Your task to perform on an android device: turn off location Image 0: 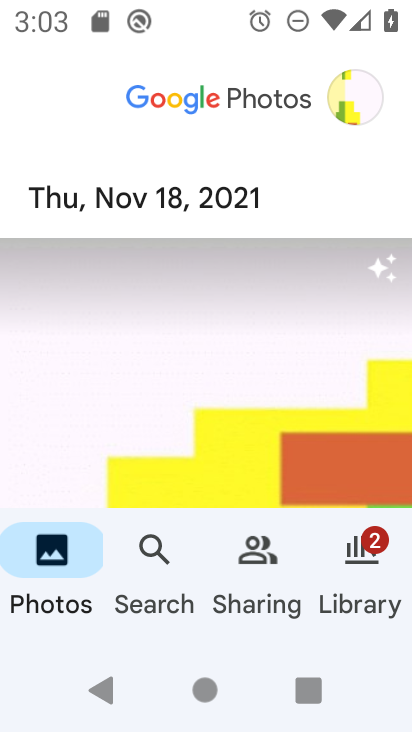
Step 0: press home button
Your task to perform on an android device: turn off location Image 1: 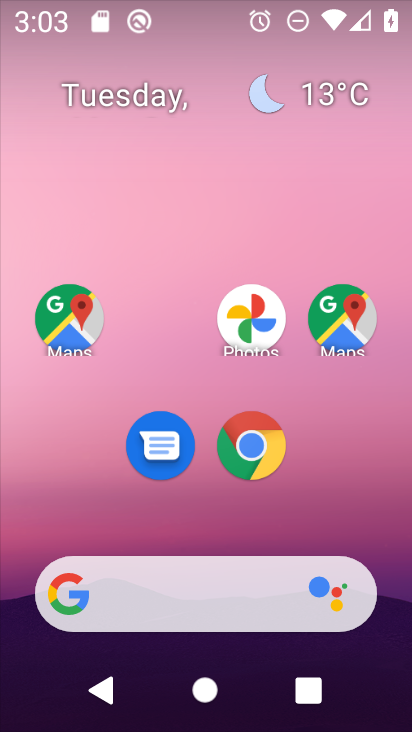
Step 1: drag from (390, 547) to (384, 290)
Your task to perform on an android device: turn off location Image 2: 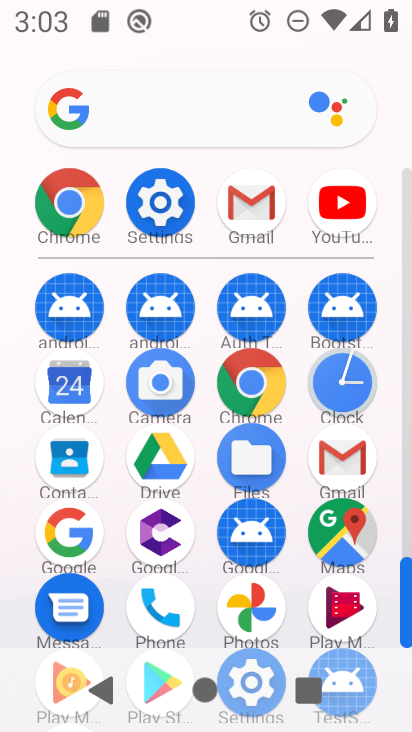
Step 2: drag from (384, 542) to (380, 262)
Your task to perform on an android device: turn off location Image 3: 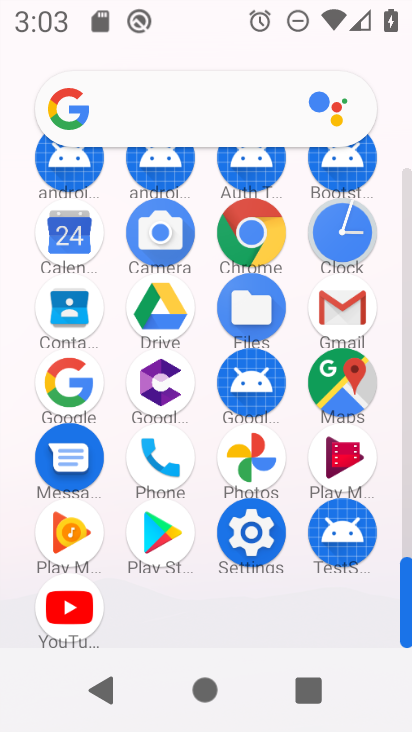
Step 3: click (247, 552)
Your task to perform on an android device: turn off location Image 4: 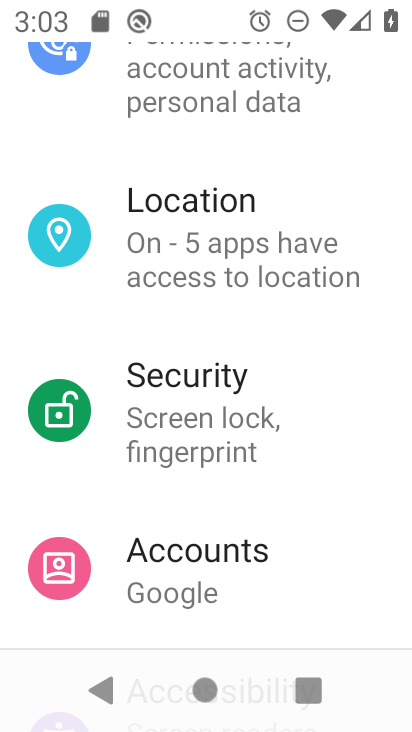
Step 4: drag from (374, 248) to (375, 352)
Your task to perform on an android device: turn off location Image 5: 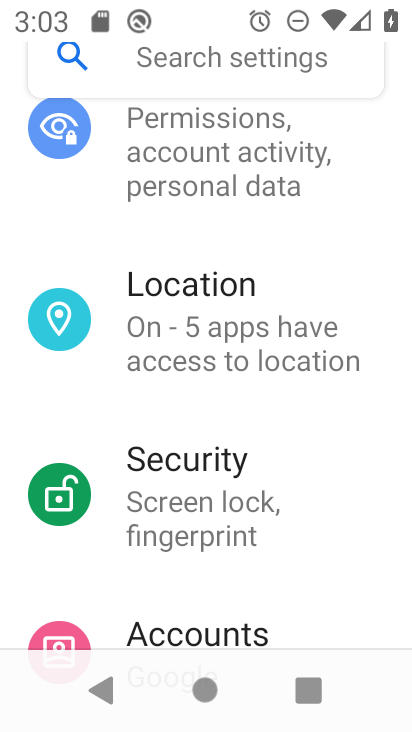
Step 5: drag from (356, 246) to (361, 367)
Your task to perform on an android device: turn off location Image 6: 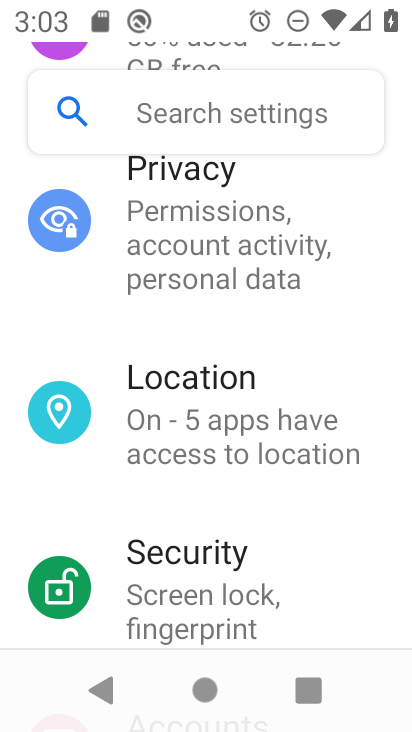
Step 6: drag from (366, 232) to (370, 391)
Your task to perform on an android device: turn off location Image 7: 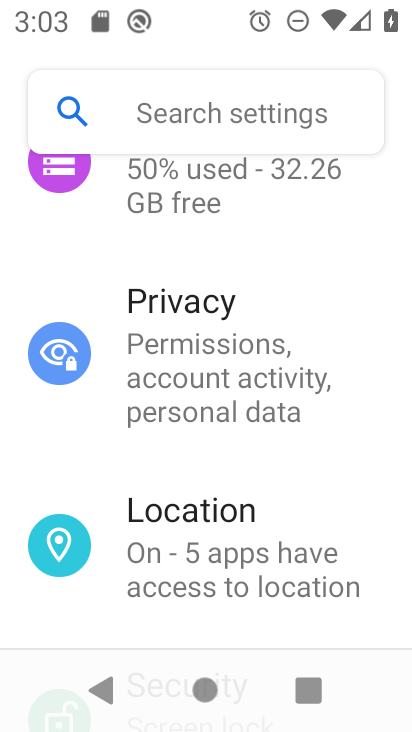
Step 7: drag from (363, 194) to (368, 313)
Your task to perform on an android device: turn off location Image 8: 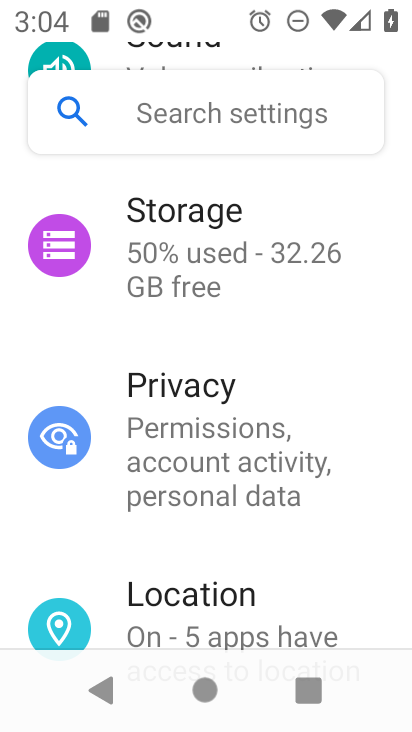
Step 8: drag from (368, 212) to (372, 313)
Your task to perform on an android device: turn off location Image 9: 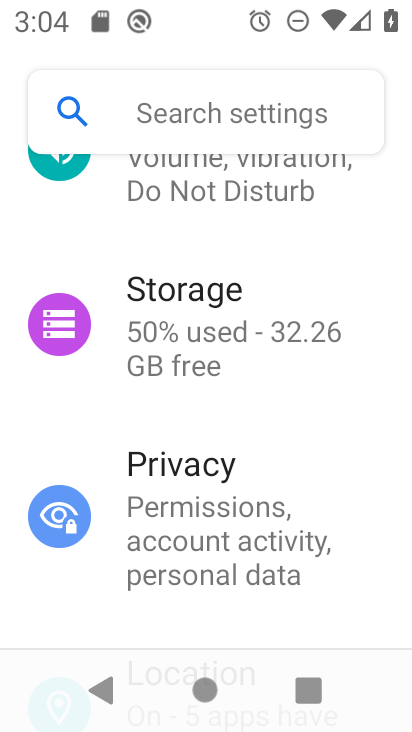
Step 9: drag from (377, 212) to (369, 357)
Your task to perform on an android device: turn off location Image 10: 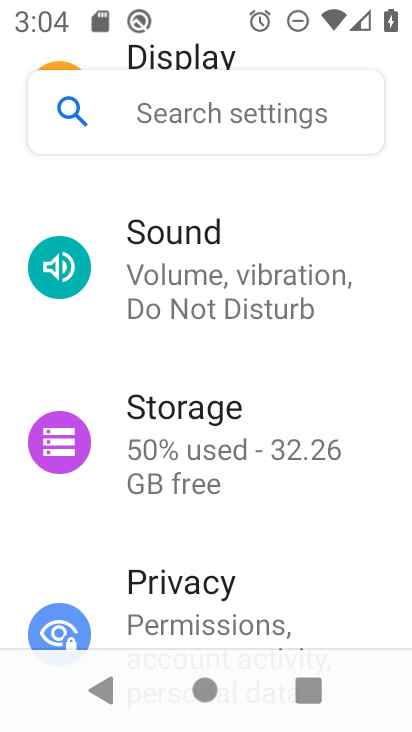
Step 10: drag from (364, 211) to (358, 369)
Your task to perform on an android device: turn off location Image 11: 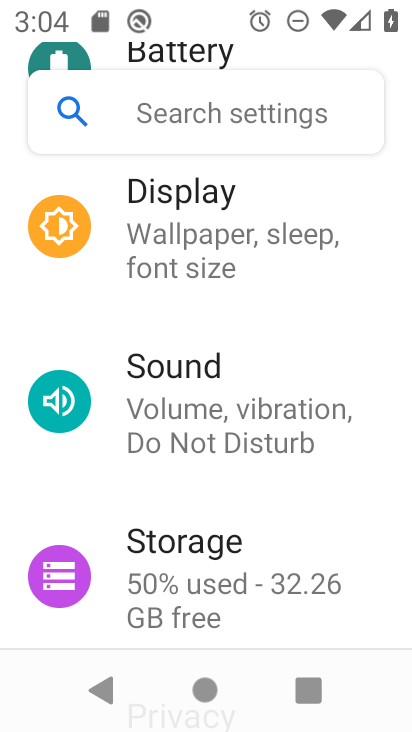
Step 11: drag from (367, 208) to (367, 322)
Your task to perform on an android device: turn off location Image 12: 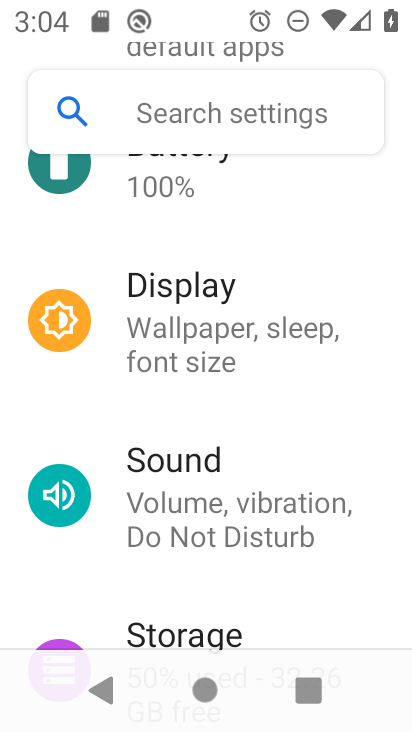
Step 12: drag from (357, 200) to (359, 327)
Your task to perform on an android device: turn off location Image 13: 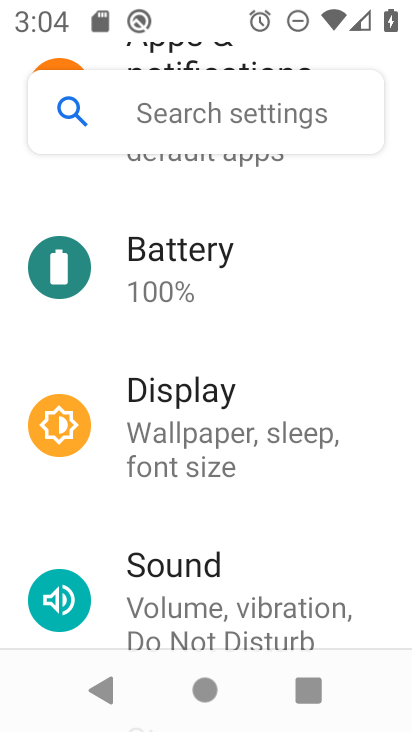
Step 13: drag from (361, 214) to (362, 380)
Your task to perform on an android device: turn off location Image 14: 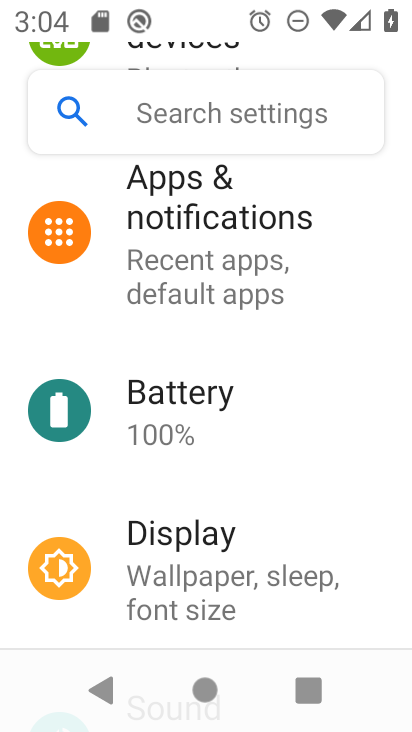
Step 14: drag from (356, 194) to (345, 360)
Your task to perform on an android device: turn off location Image 15: 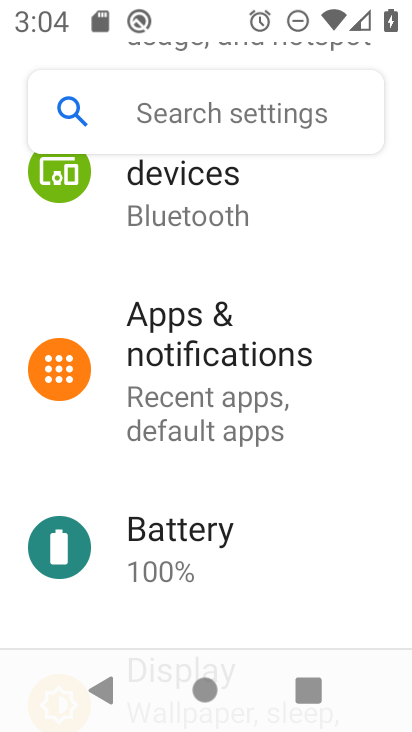
Step 15: drag from (339, 215) to (337, 332)
Your task to perform on an android device: turn off location Image 16: 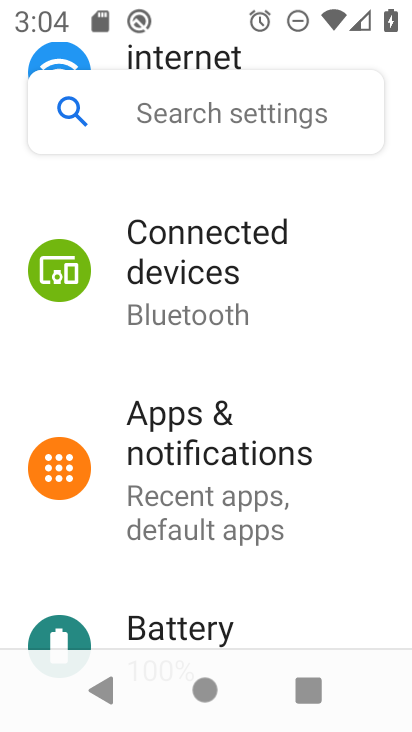
Step 16: drag from (342, 196) to (340, 352)
Your task to perform on an android device: turn off location Image 17: 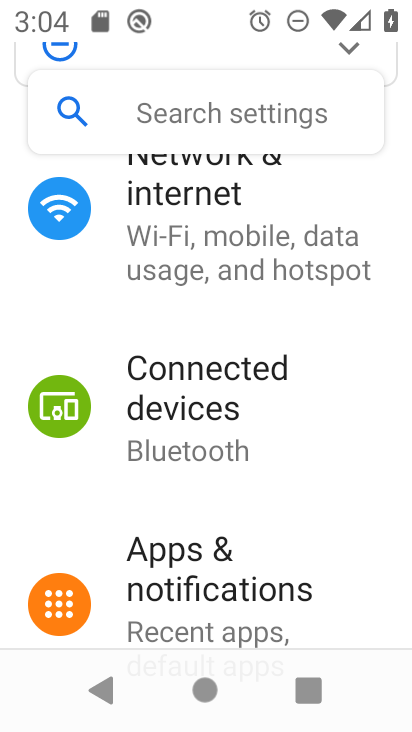
Step 17: drag from (340, 196) to (344, 362)
Your task to perform on an android device: turn off location Image 18: 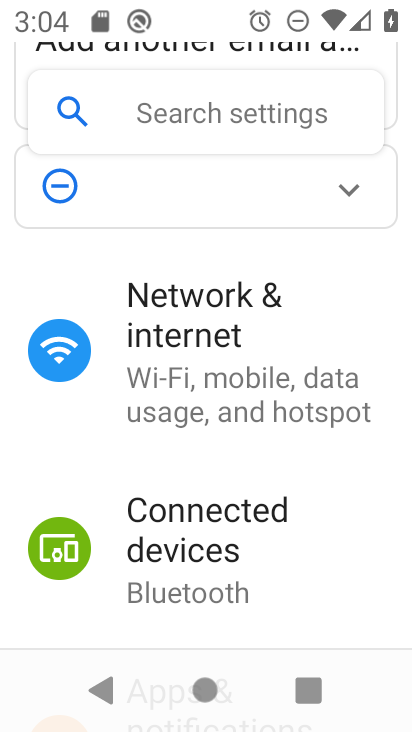
Step 18: drag from (327, 504) to (337, 364)
Your task to perform on an android device: turn off location Image 19: 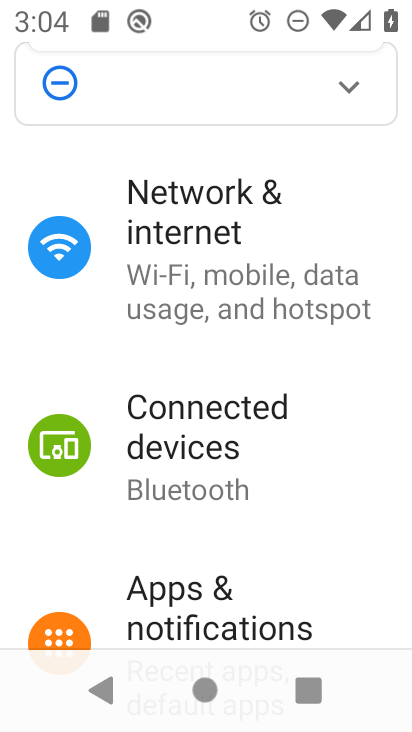
Step 19: drag from (336, 492) to (340, 388)
Your task to perform on an android device: turn off location Image 20: 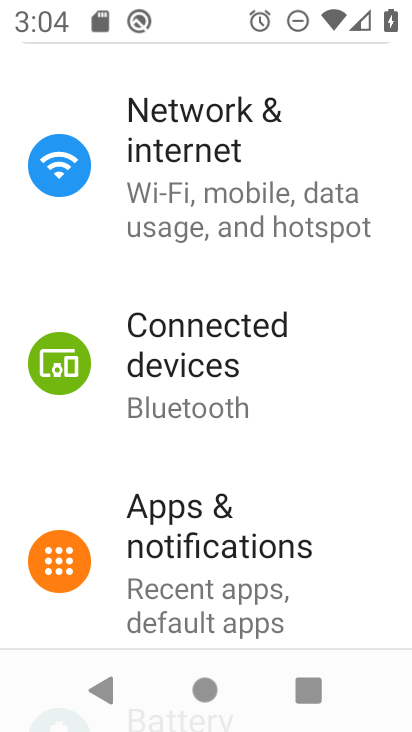
Step 20: drag from (341, 526) to (340, 403)
Your task to perform on an android device: turn off location Image 21: 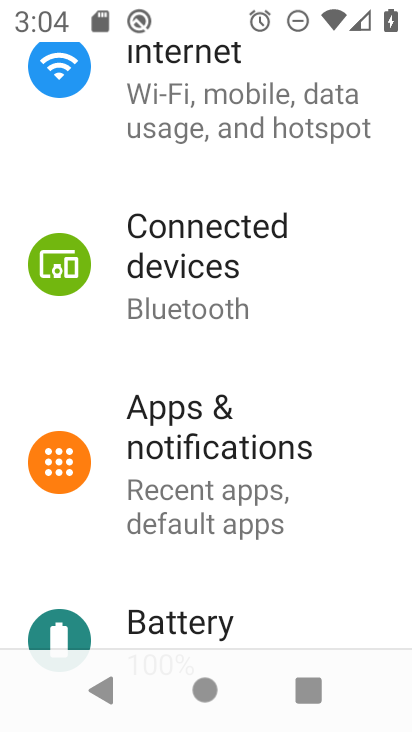
Step 21: drag from (331, 537) to (333, 401)
Your task to perform on an android device: turn off location Image 22: 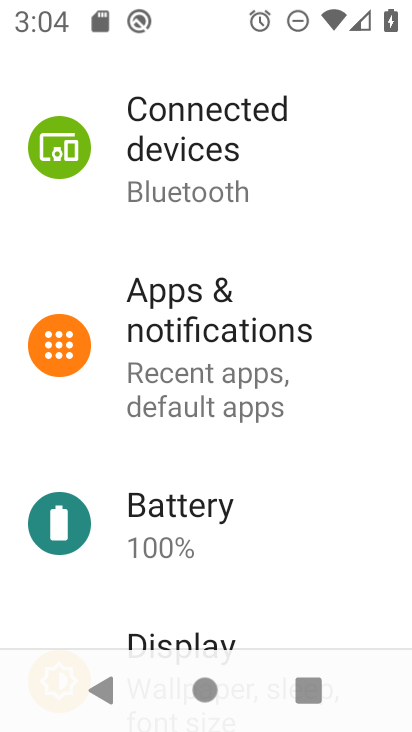
Step 22: drag from (334, 549) to (343, 433)
Your task to perform on an android device: turn off location Image 23: 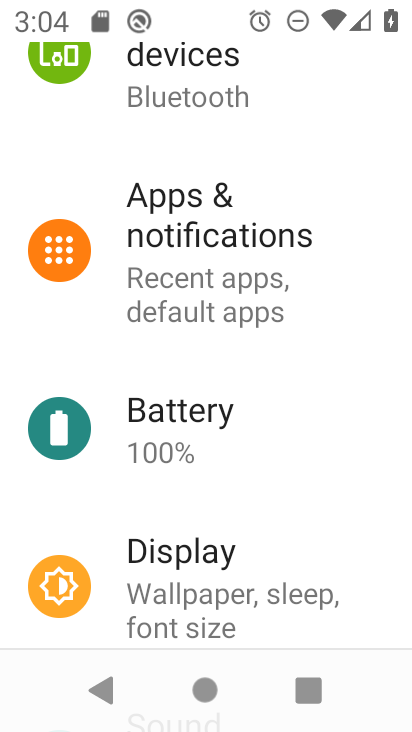
Step 23: drag from (358, 588) to (355, 439)
Your task to perform on an android device: turn off location Image 24: 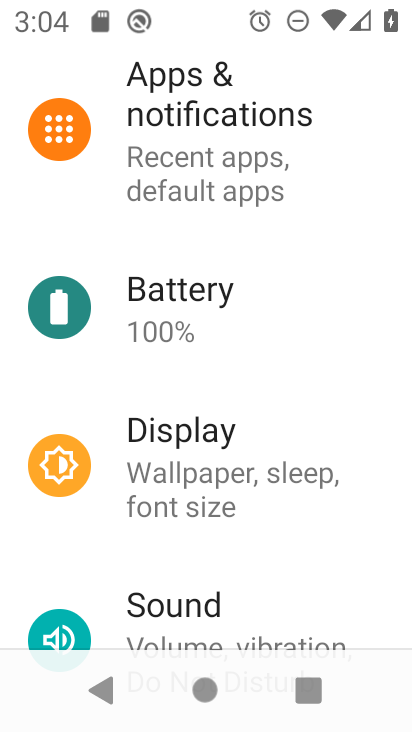
Step 24: drag from (337, 572) to (337, 422)
Your task to perform on an android device: turn off location Image 25: 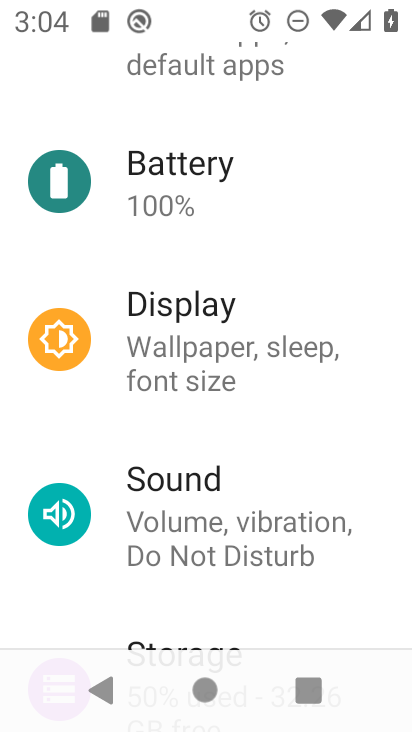
Step 25: drag from (342, 603) to (342, 458)
Your task to perform on an android device: turn off location Image 26: 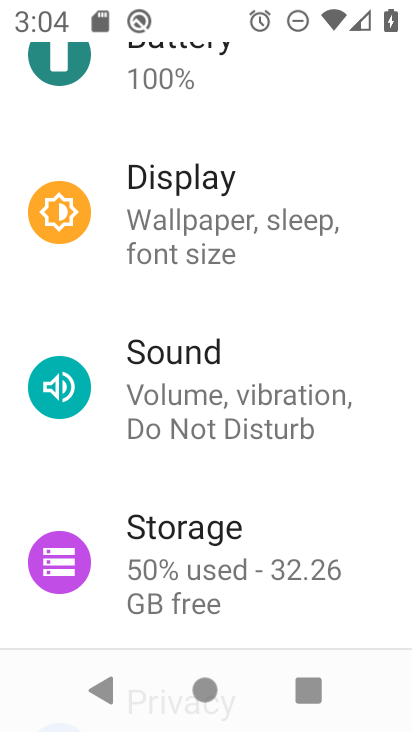
Step 26: drag from (358, 601) to (360, 460)
Your task to perform on an android device: turn off location Image 27: 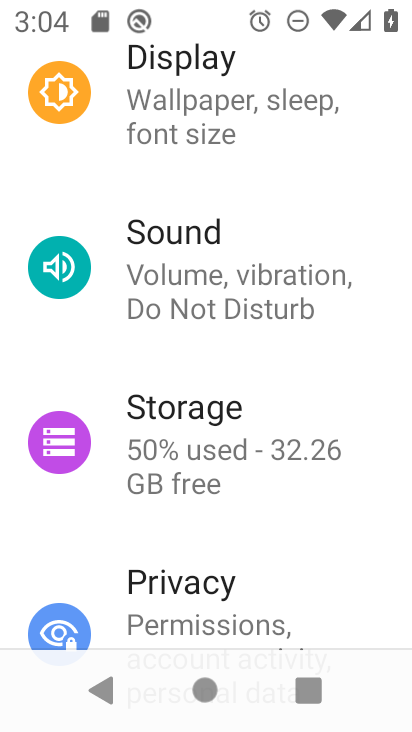
Step 27: drag from (357, 591) to (350, 448)
Your task to perform on an android device: turn off location Image 28: 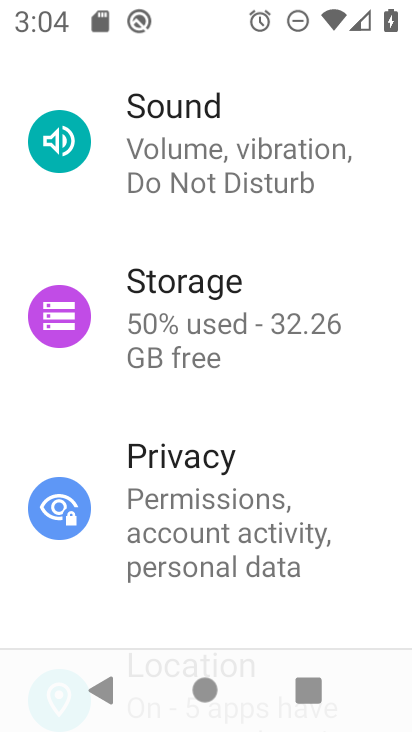
Step 28: drag from (357, 589) to (359, 439)
Your task to perform on an android device: turn off location Image 29: 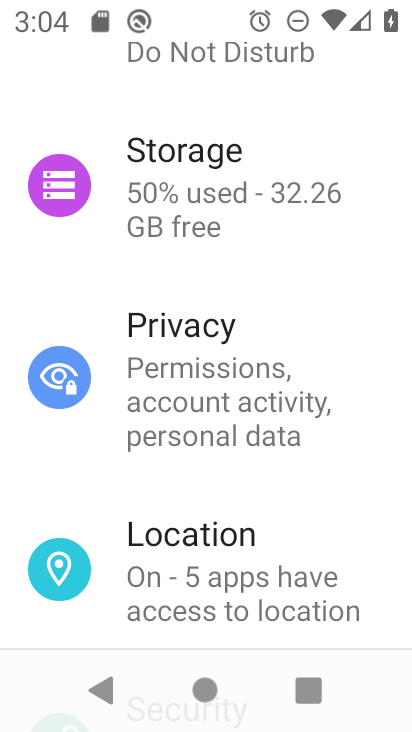
Step 29: click (298, 592)
Your task to perform on an android device: turn off location Image 30: 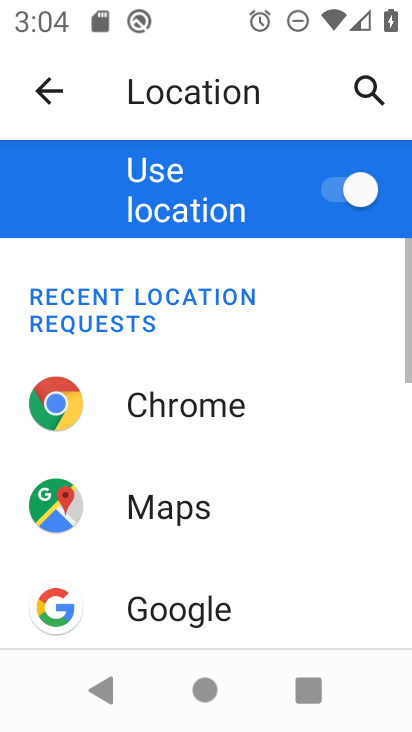
Step 30: click (353, 187)
Your task to perform on an android device: turn off location Image 31: 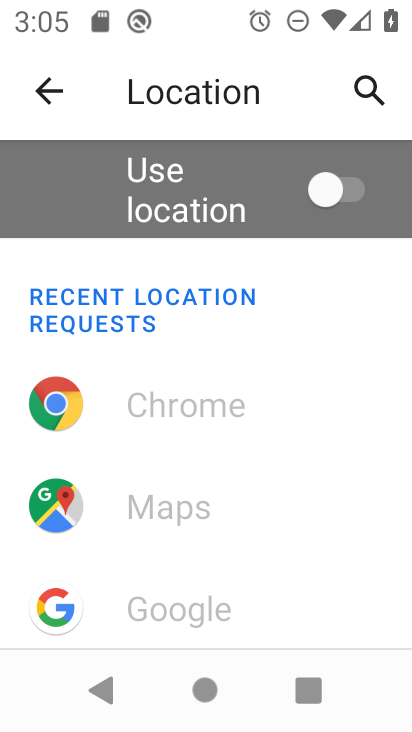
Step 31: task complete